Your task to perform on an android device: delete the emails in spam in the gmail app Image 0: 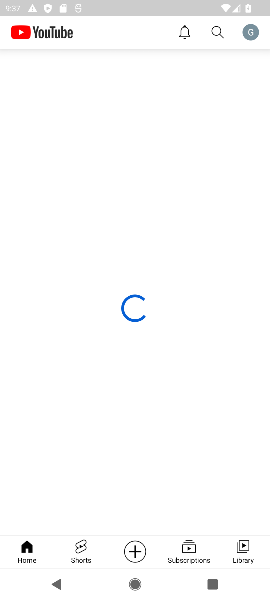
Step 0: press home button
Your task to perform on an android device: delete the emails in spam in the gmail app Image 1: 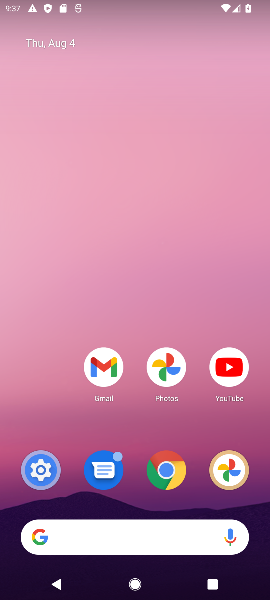
Step 1: click (99, 367)
Your task to perform on an android device: delete the emails in spam in the gmail app Image 2: 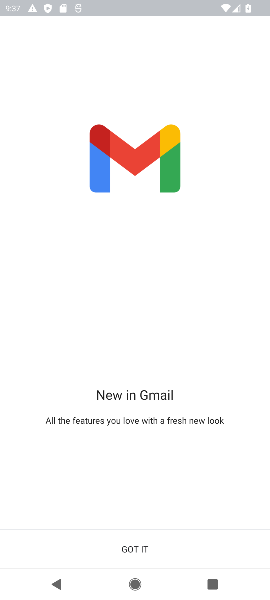
Step 2: click (137, 550)
Your task to perform on an android device: delete the emails in spam in the gmail app Image 3: 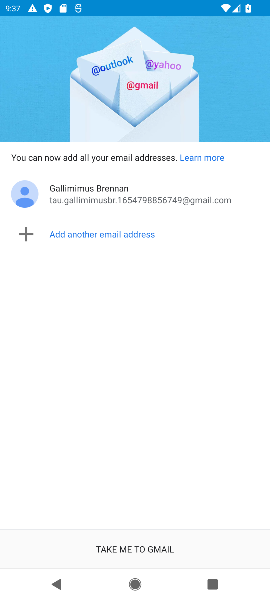
Step 3: click (127, 543)
Your task to perform on an android device: delete the emails in spam in the gmail app Image 4: 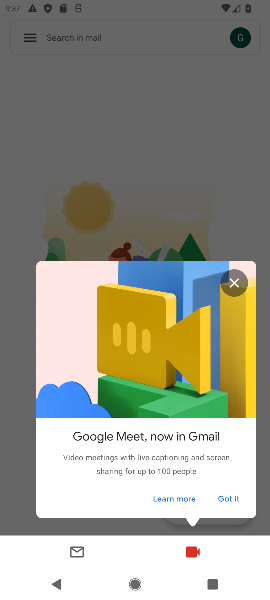
Step 4: click (237, 499)
Your task to perform on an android device: delete the emails in spam in the gmail app Image 5: 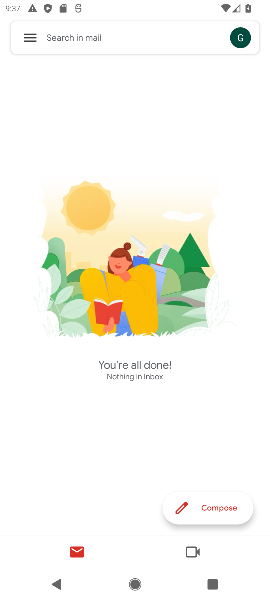
Step 5: click (26, 37)
Your task to perform on an android device: delete the emails in spam in the gmail app Image 6: 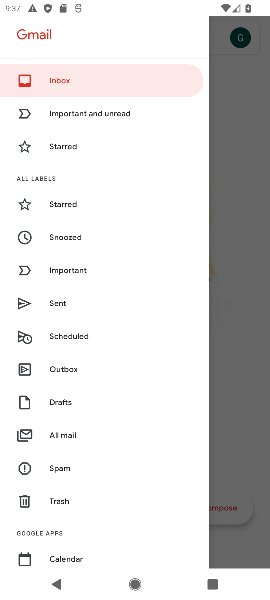
Step 6: click (72, 469)
Your task to perform on an android device: delete the emails in spam in the gmail app Image 7: 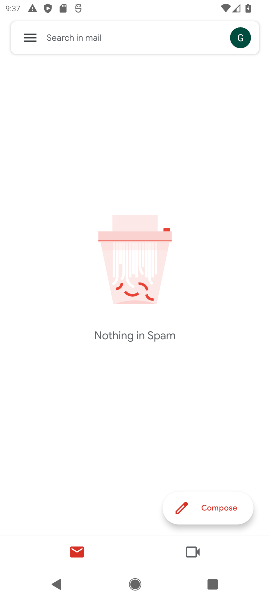
Step 7: task complete